Your task to perform on an android device: change the clock display to digital Image 0: 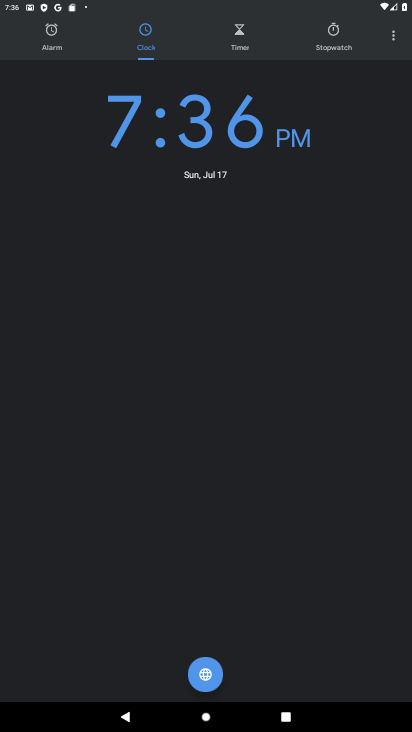
Step 0: press home button
Your task to perform on an android device: change the clock display to digital Image 1: 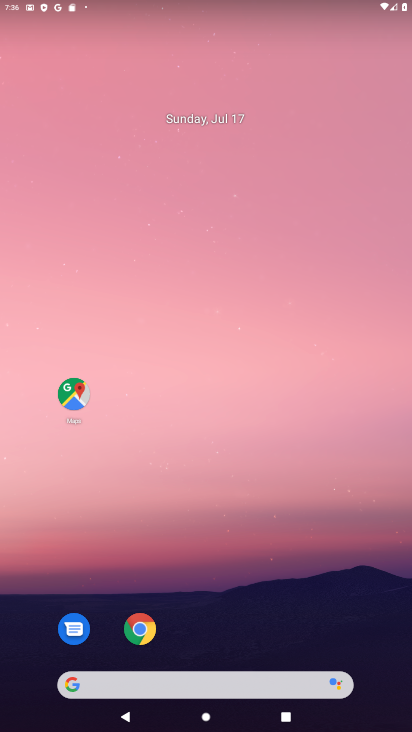
Step 1: drag from (192, 649) to (179, 120)
Your task to perform on an android device: change the clock display to digital Image 2: 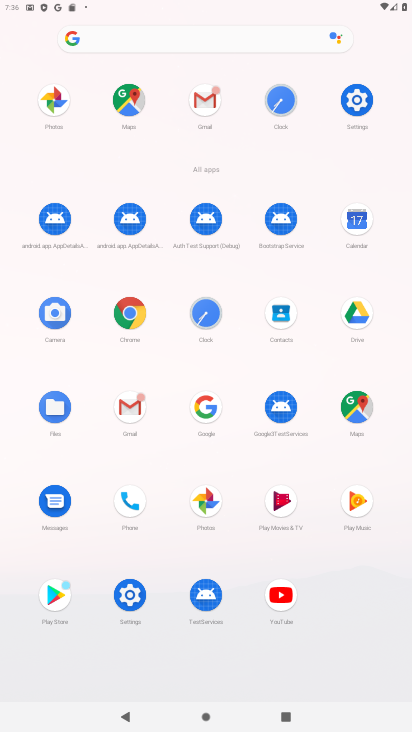
Step 2: click (207, 319)
Your task to perform on an android device: change the clock display to digital Image 3: 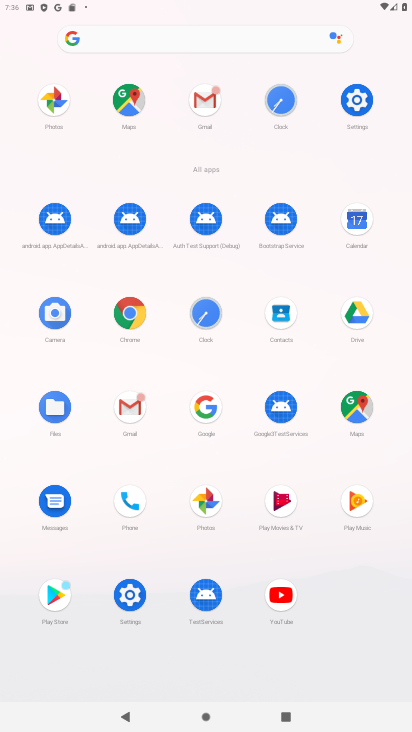
Step 3: click (207, 306)
Your task to perform on an android device: change the clock display to digital Image 4: 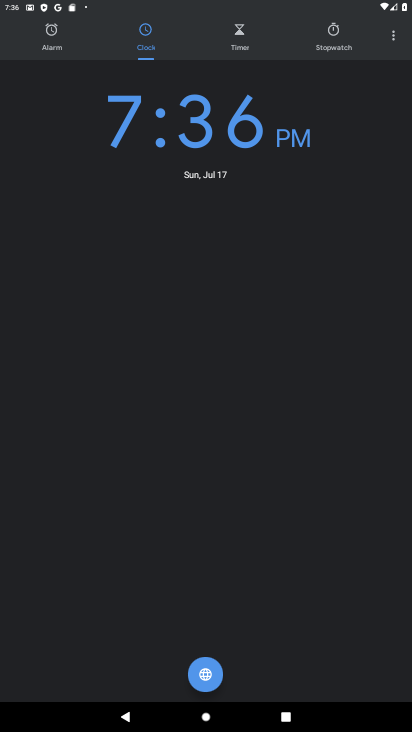
Step 4: click (387, 39)
Your task to perform on an android device: change the clock display to digital Image 5: 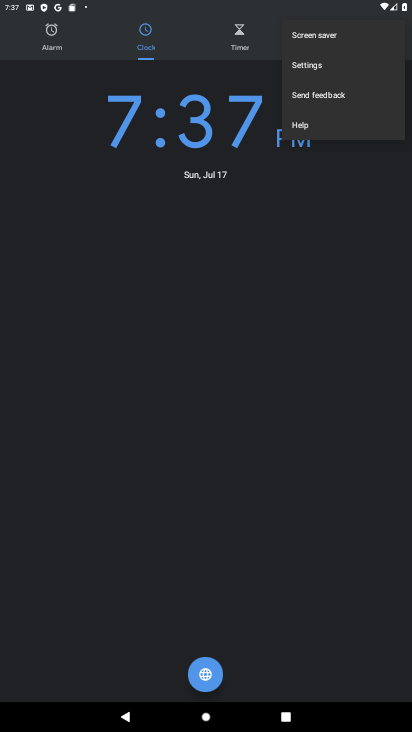
Step 5: click (308, 66)
Your task to perform on an android device: change the clock display to digital Image 6: 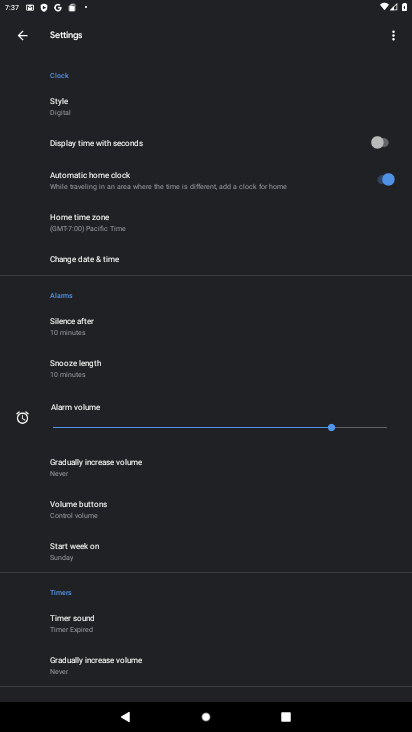
Step 6: click (86, 246)
Your task to perform on an android device: change the clock display to digital Image 7: 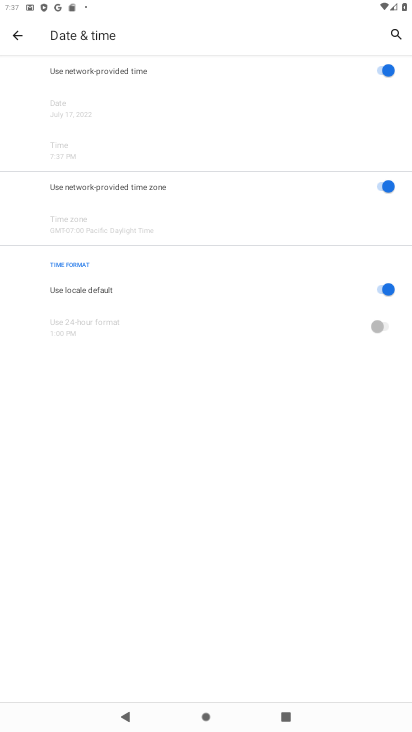
Step 7: click (16, 36)
Your task to perform on an android device: change the clock display to digital Image 8: 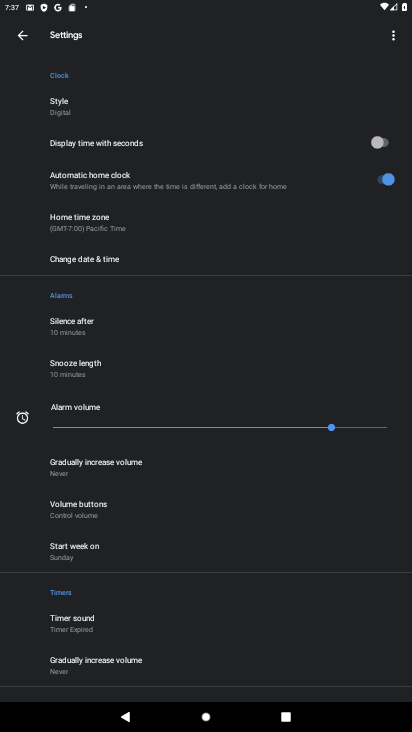
Step 8: click (88, 104)
Your task to perform on an android device: change the clock display to digital Image 9: 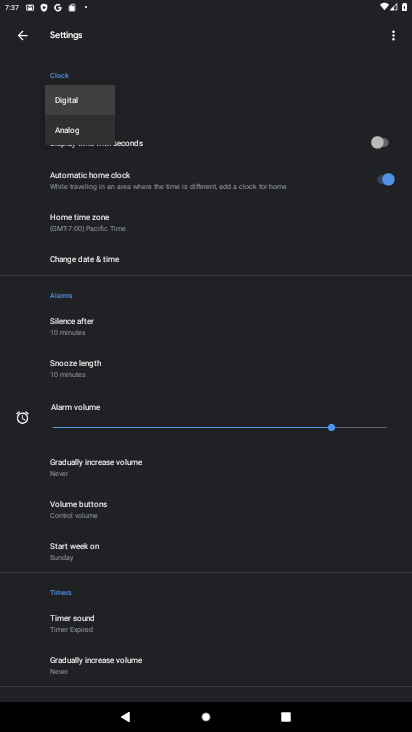
Step 9: click (57, 94)
Your task to perform on an android device: change the clock display to digital Image 10: 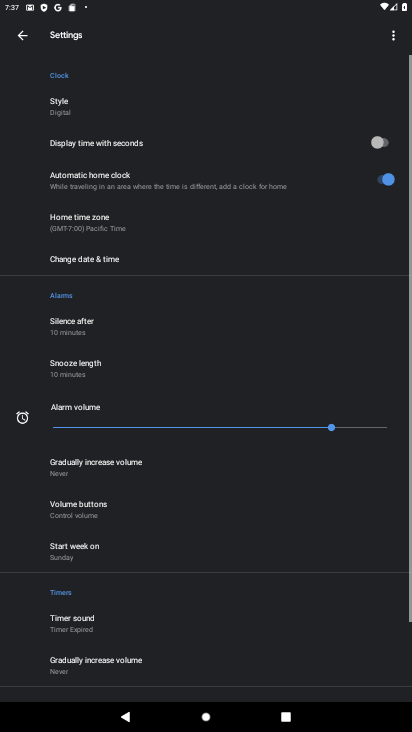
Step 10: task complete